Your task to perform on an android device: toggle priority inbox in the gmail app Image 0: 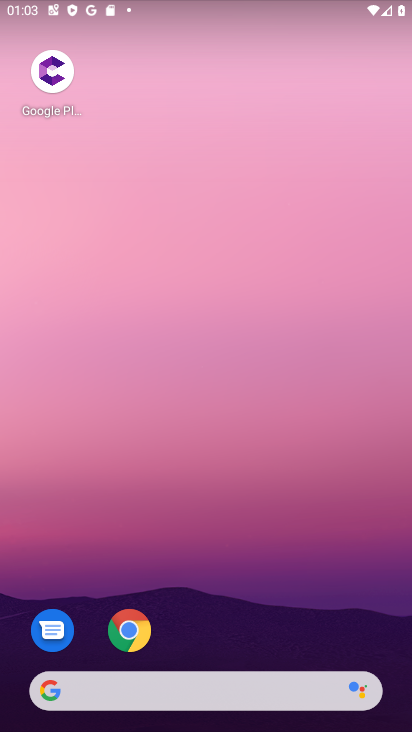
Step 0: drag from (276, 609) to (269, 113)
Your task to perform on an android device: toggle priority inbox in the gmail app Image 1: 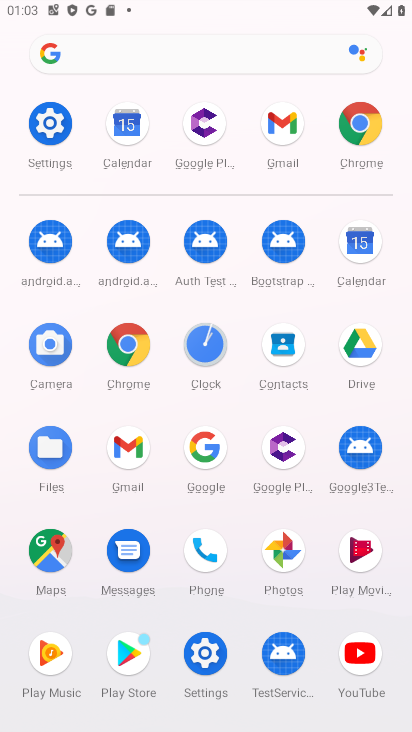
Step 1: click (270, 147)
Your task to perform on an android device: toggle priority inbox in the gmail app Image 2: 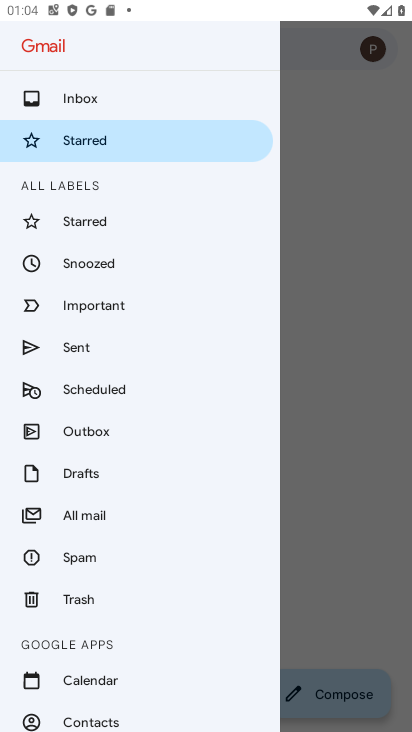
Step 2: task complete